Your task to perform on an android device: Open display settings Image 0: 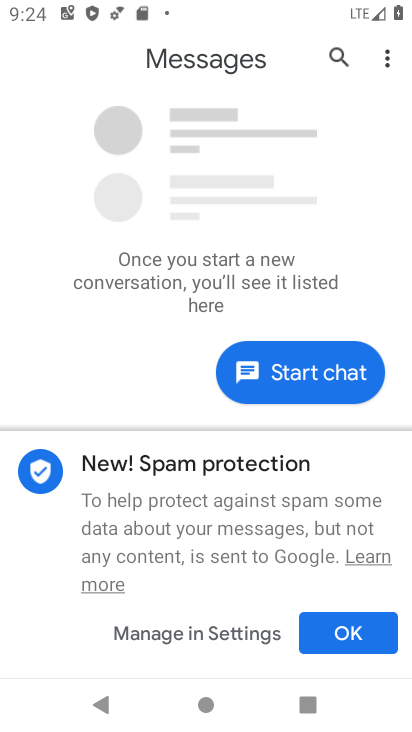
Step 0: press home button
Your task to perform on an android device: Open display settings Image 1: 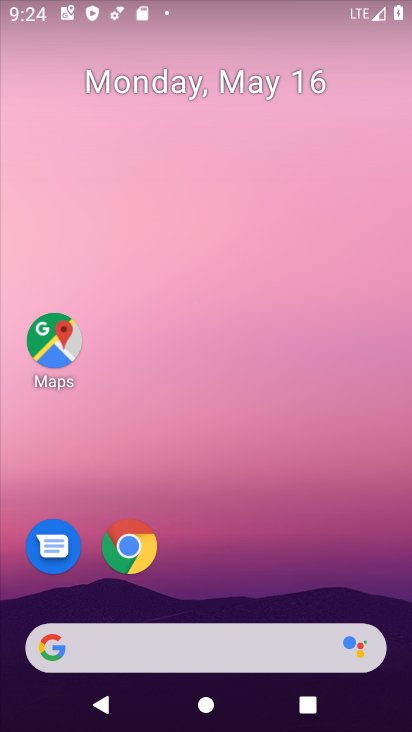
Step 1: drag from (251, 681) to (284, 89)
Your task to perform on an android device: Open display settings Image 2: 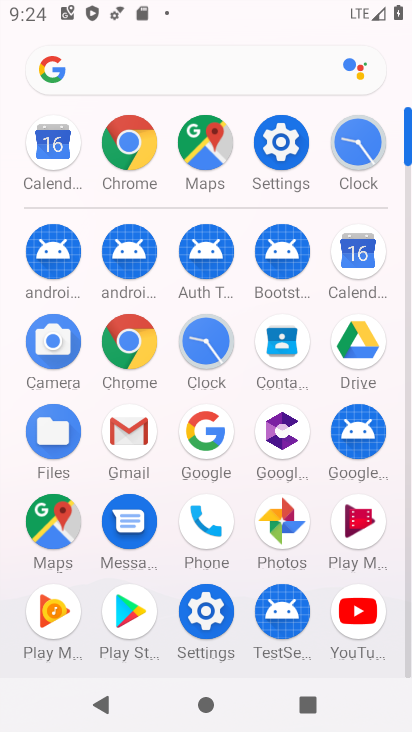
Step 2: click (285, 157)
Your task to perform on an android device: Open display settings Image 3: 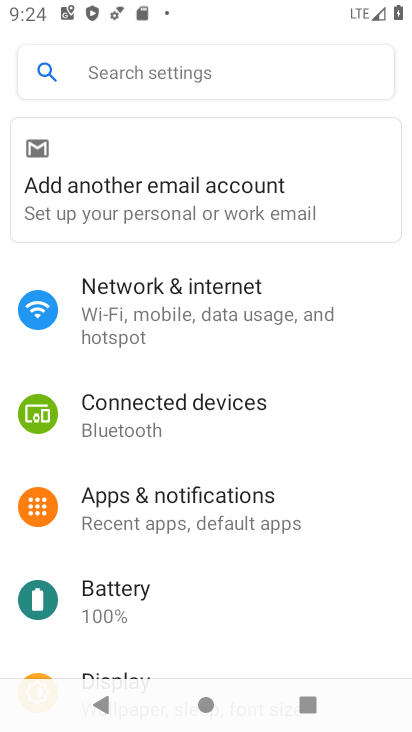
Step 3: click (113, 669)
Your task to perform on an android device: Open display settings Image 4: 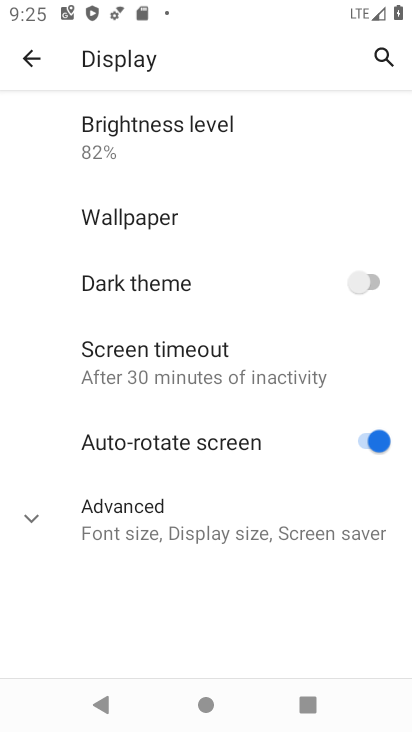
Step 4: click (56, 523)
Your task to perform on an android device: Open display settings Image 5: 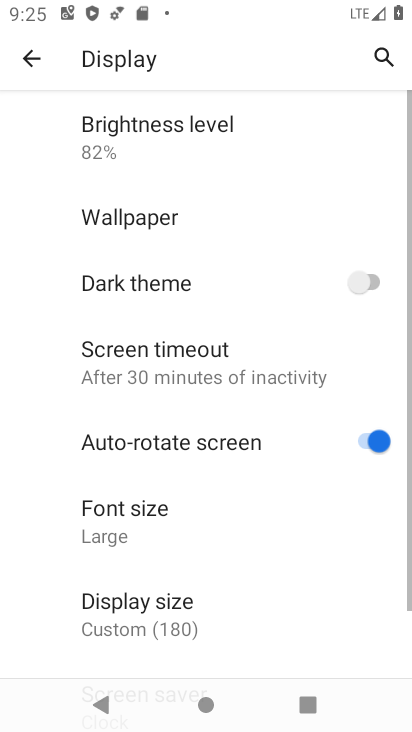
Step 5: task complete